Your task to perform on an android device: Go to battery settings Image 0: 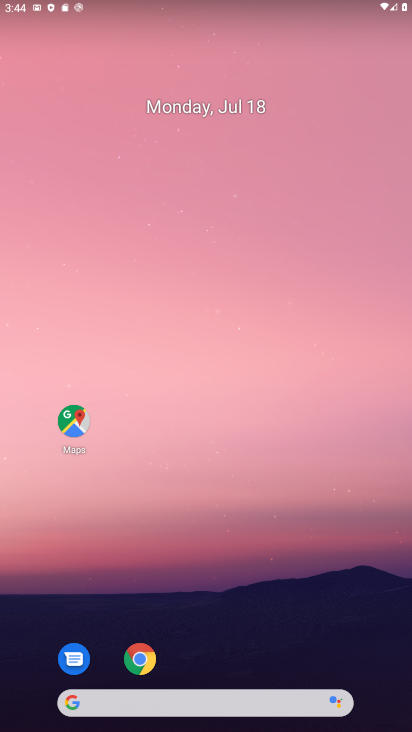
Step 0: drag from (329, 619) to (278, 174)
Your task to perform on an android device: Go to battery settings Image 1: 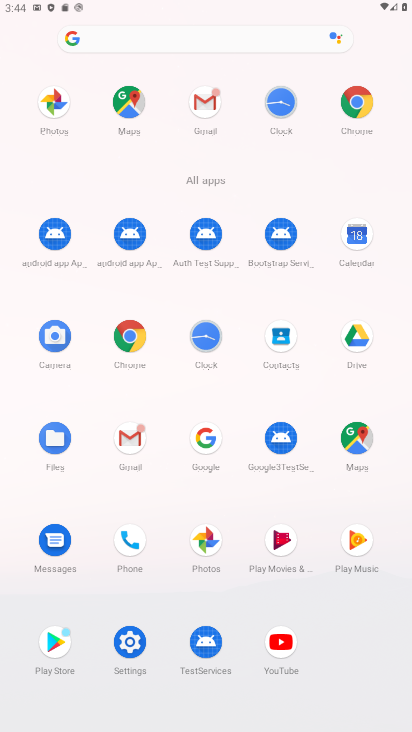
Step 1: click (138, 638)
Your task to perform on an android device: Go to battery settings Image 2: 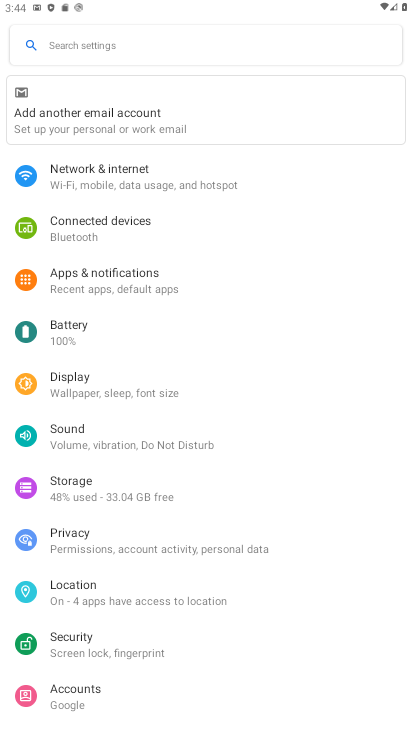
Step 2: click (243, 336)
Your task to perform on an android device: Go to battery settings Image 3: 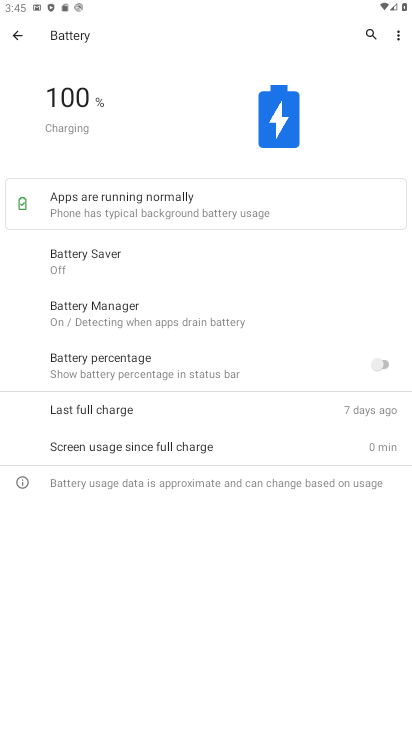
Step 3: task complete